Your task to perform on an android device: Open battery settings Image 0: 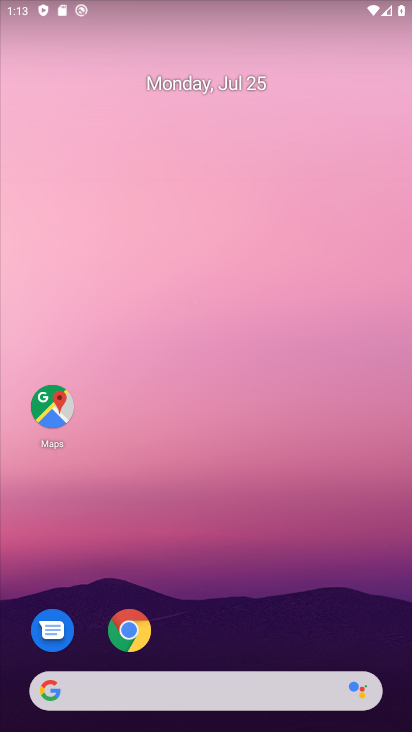
Step 0: drag from (241, 662) to (223, 346)
Your task to perform on an android device: Open battery settings Image 1: 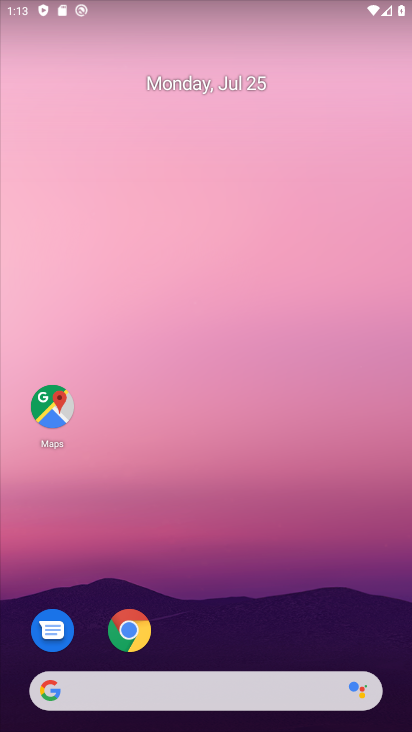
Step 1: drag from (271, 633) to (245, 151)
Your task to perform on an android device: Open battery settings Image 2: 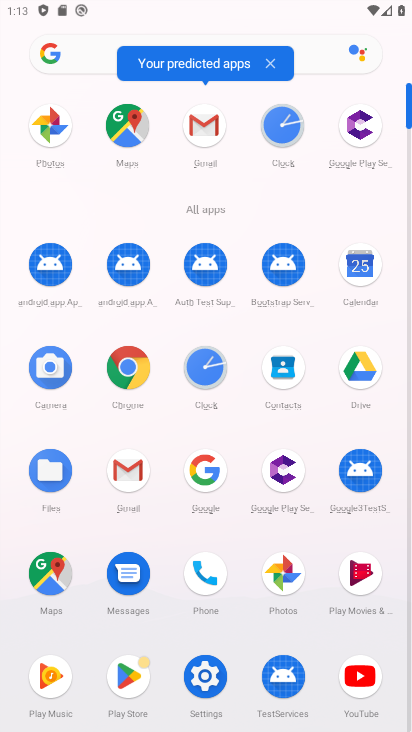
Step 2: click (210, 678)
Your task to perform on an android device: Open battery settings Image 3: 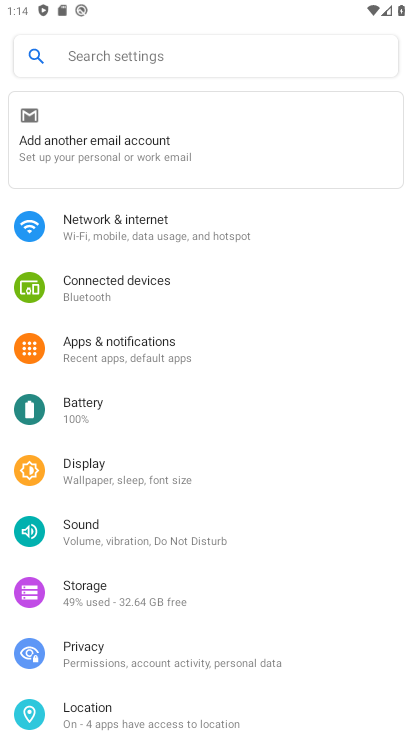
Step 3: click (90, 395)
Your task to perform on an android device: Open battery settings Image 4: 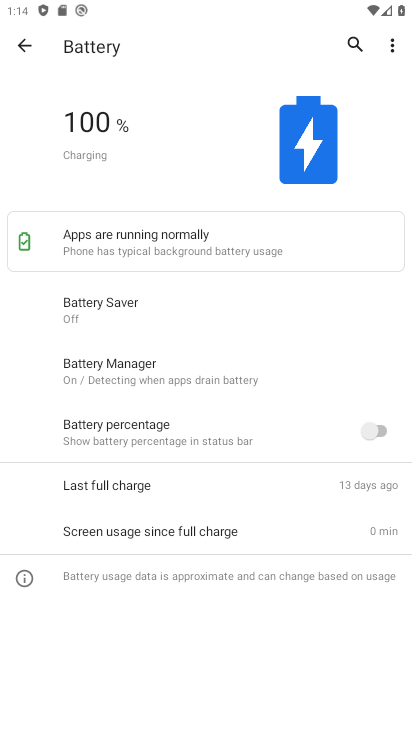
Step 4: task complete